Your task to perform on an android device: Go to Amazon Image 0: 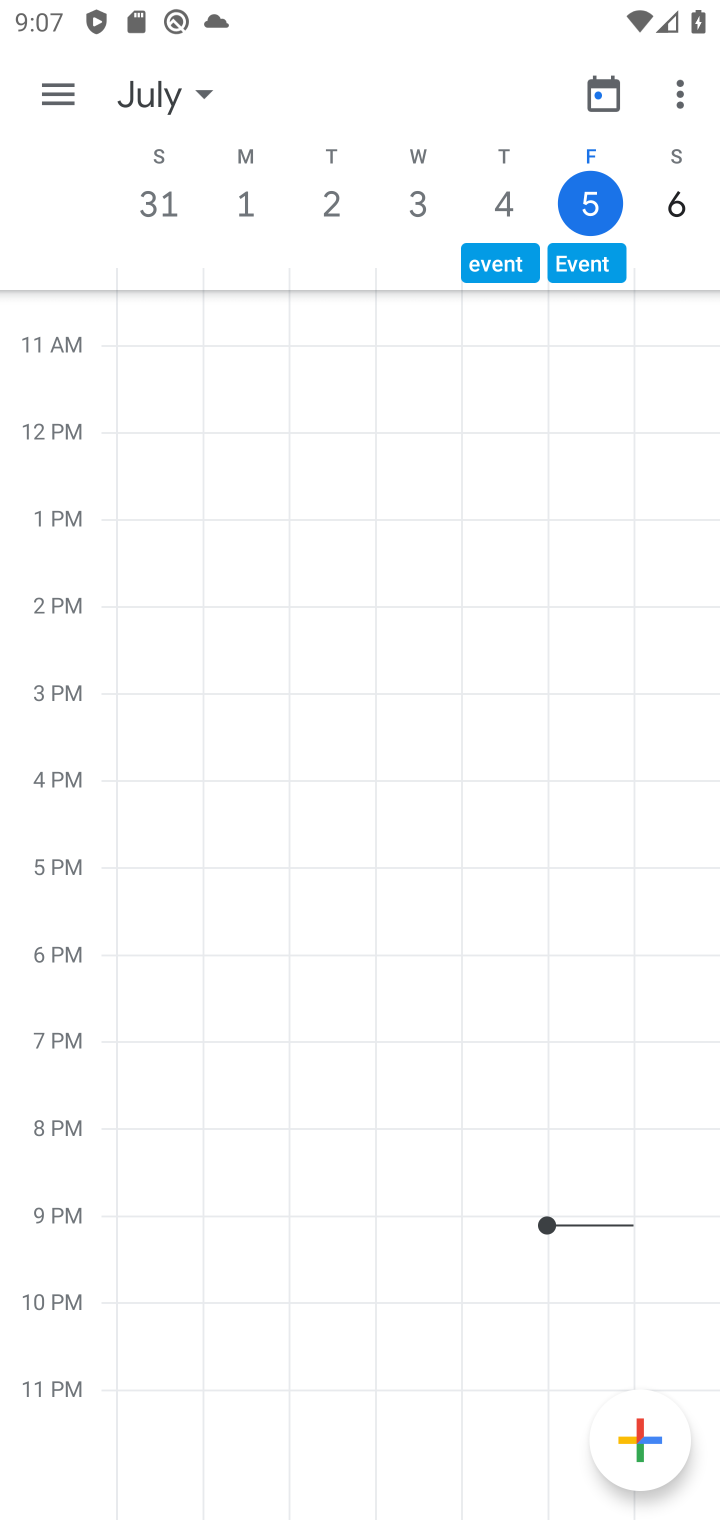
Step 0: press home button
Your task to perform on an android device: Go to Amazon Image 1: 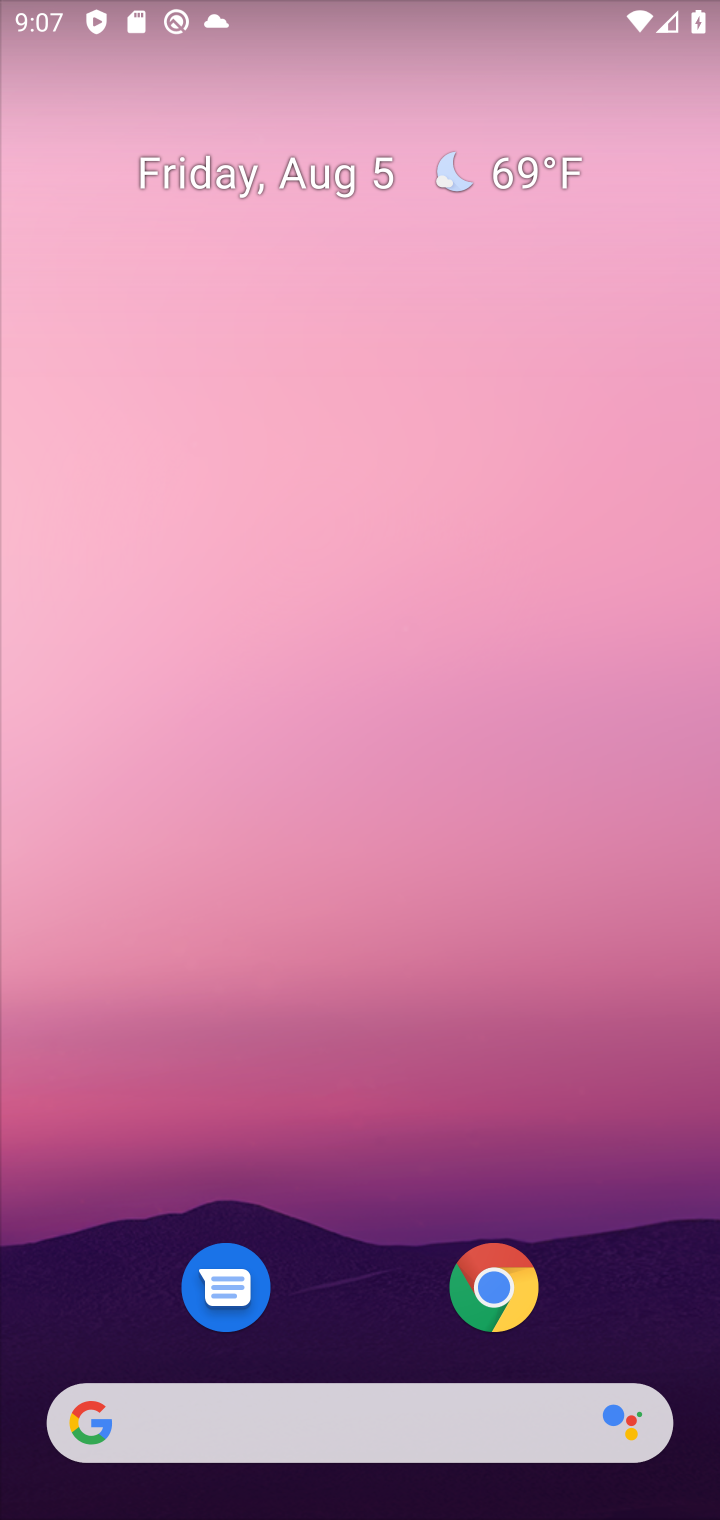
Step 1: click (493, 1293)
Your task to perform on an android device: Go to Amazon Image 2: 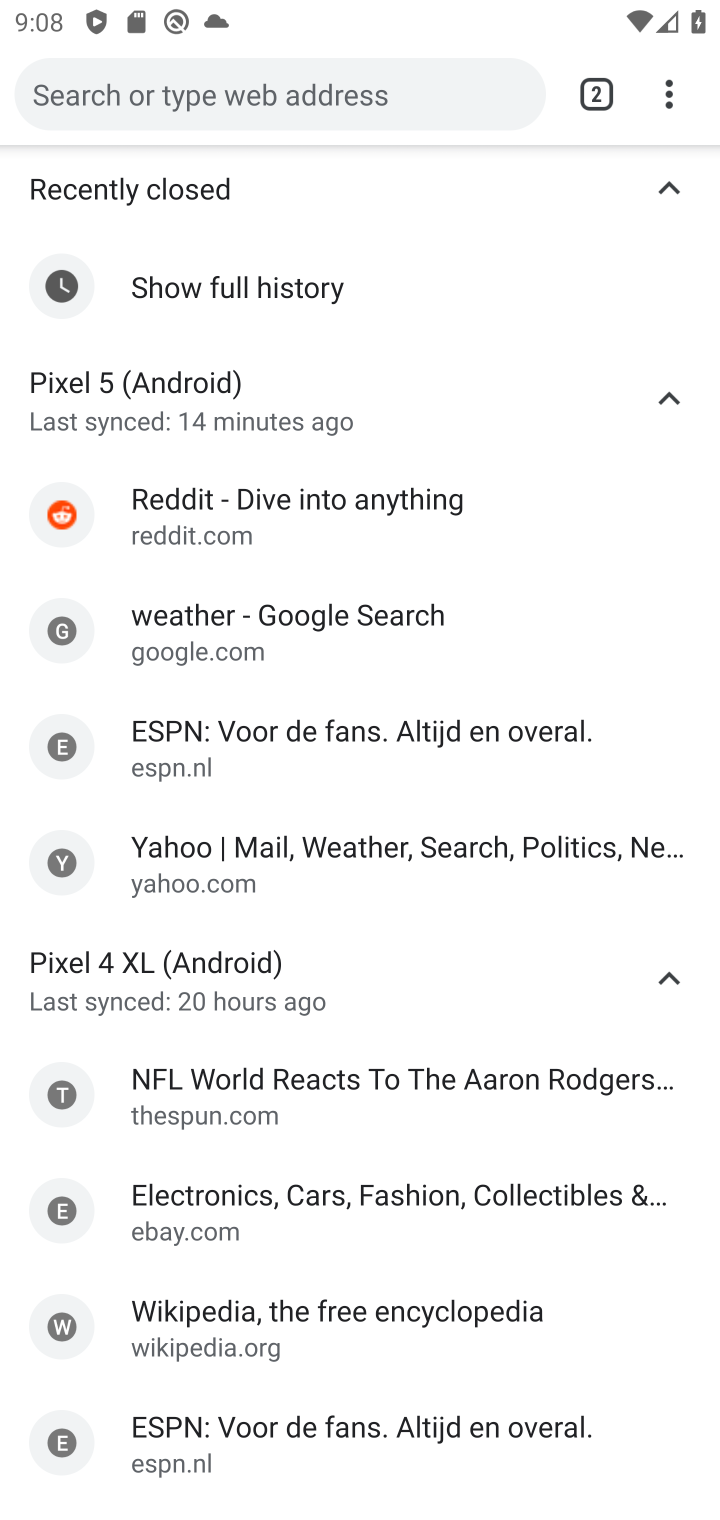
Step 2: click (667, 100)
Your task to perform on an android device: Go to Amazon Image 3: 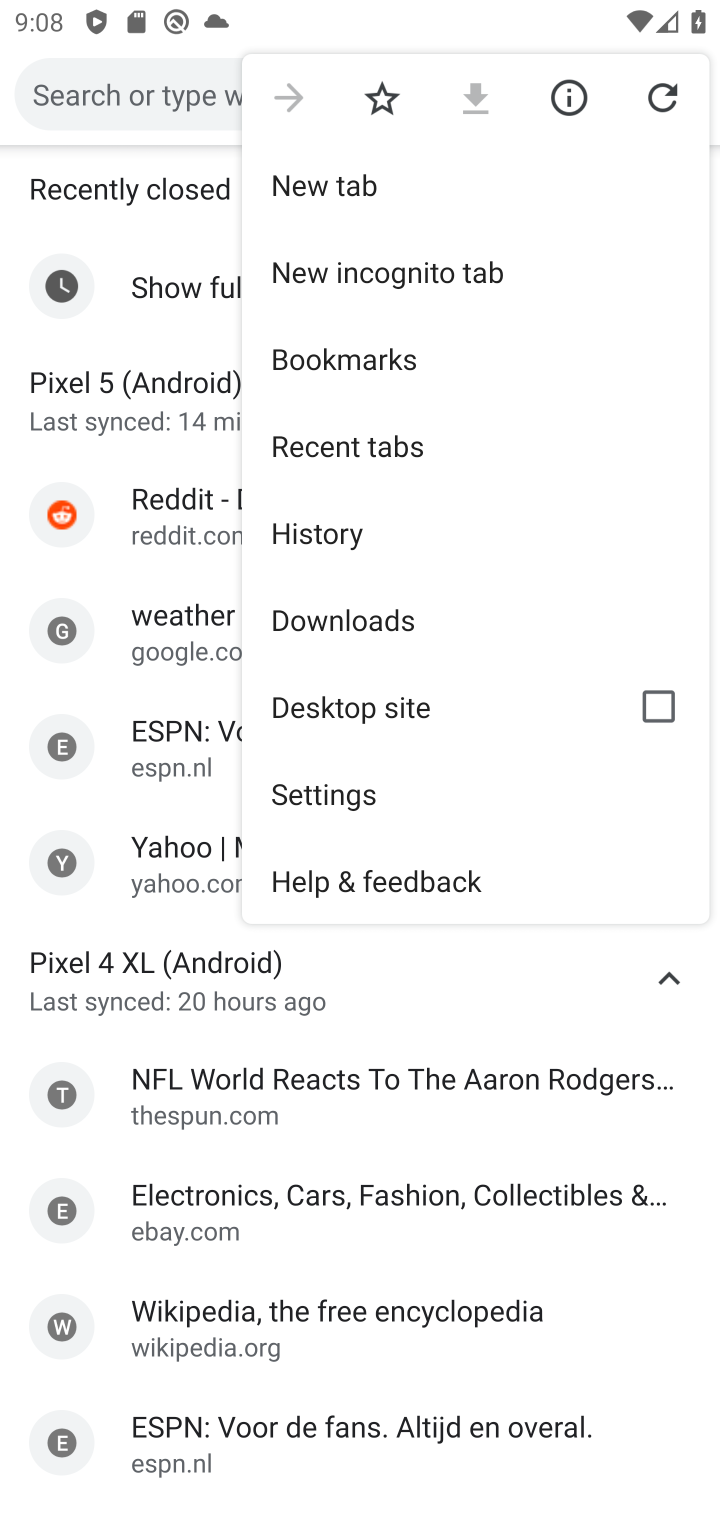
Step 3: click (342, 171)
Your task to perform on an android device: Go to Amazon Image 4: 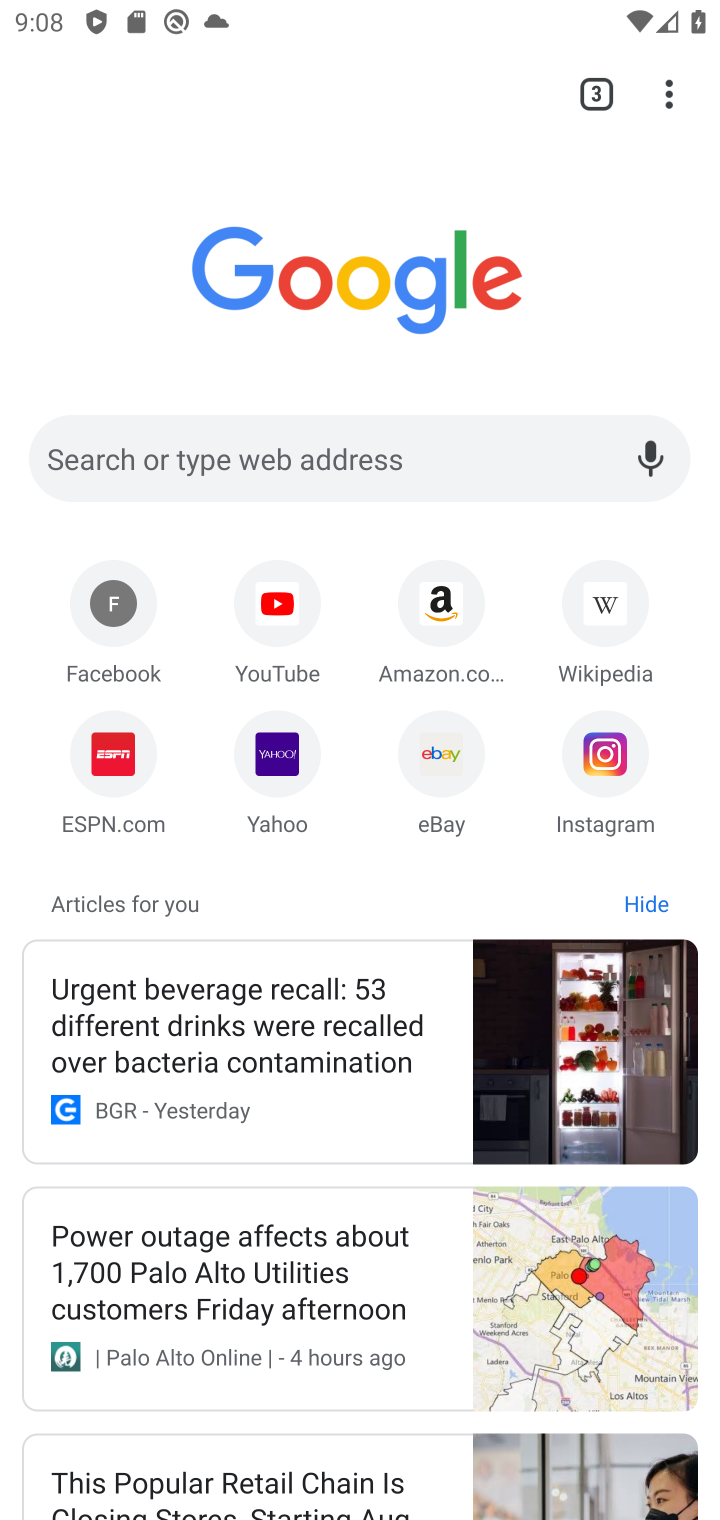
Step 4: click (446, 603)
Your task to perform on an android device: Go to Amazon Image 5: 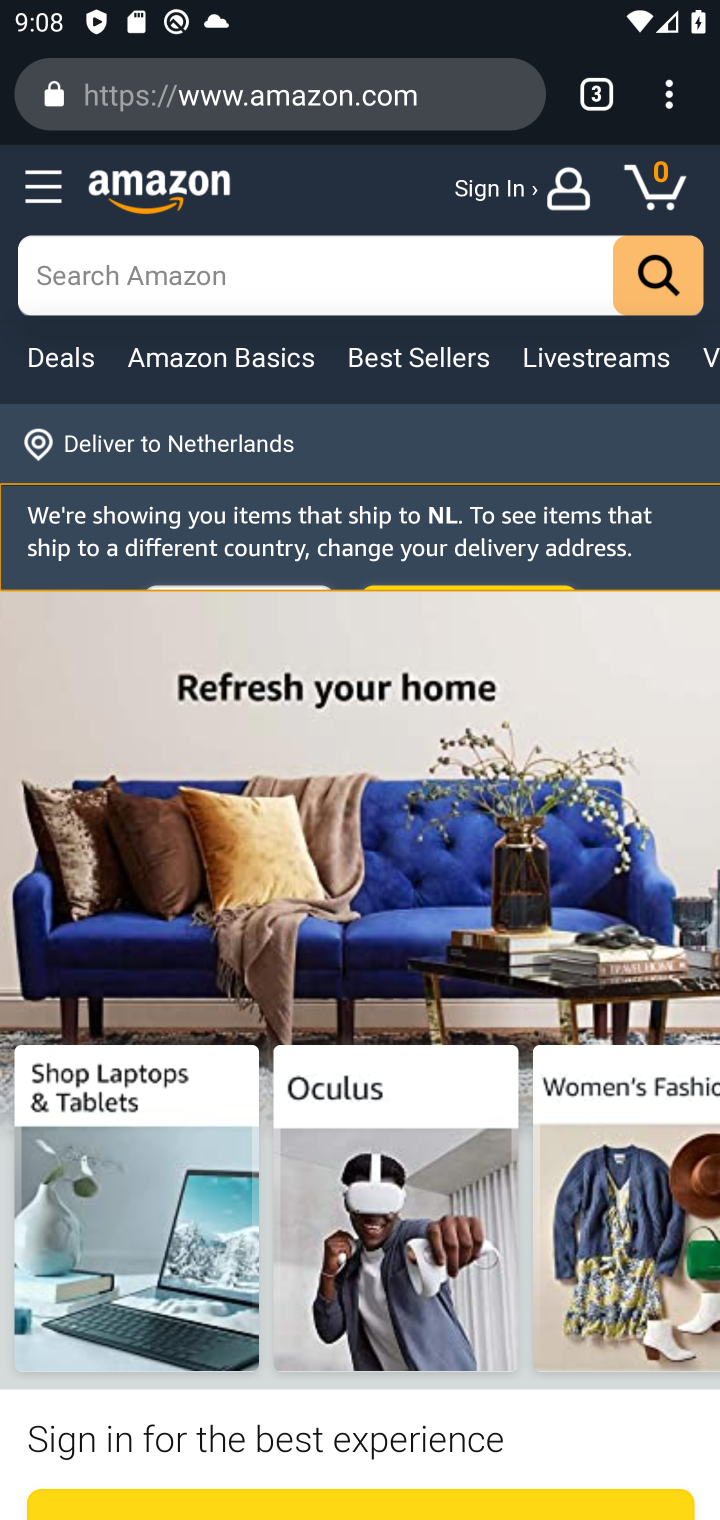
Step 5: task complete